Your task to perform on an android device: What's the weather today? Image 0: 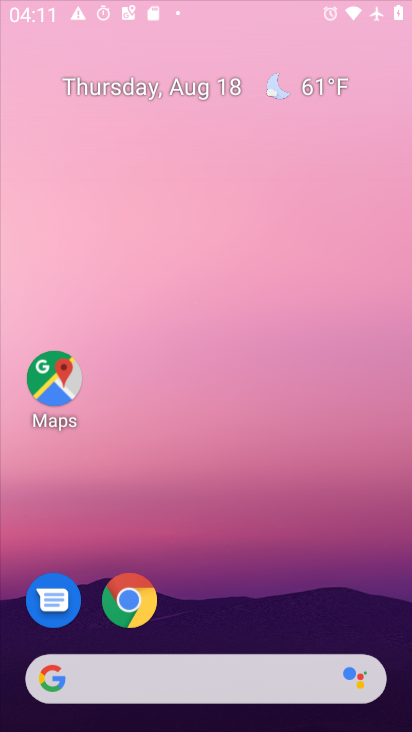
Step 0: press home button
Your task to perform on an android device: What's the weather today? Image 1: 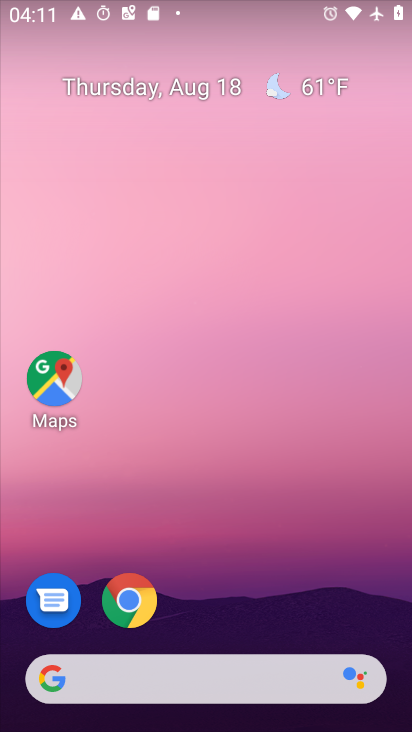
Step 1: click (50, 690)
Your task to perform on an android device: What's the weather today? Image 2: 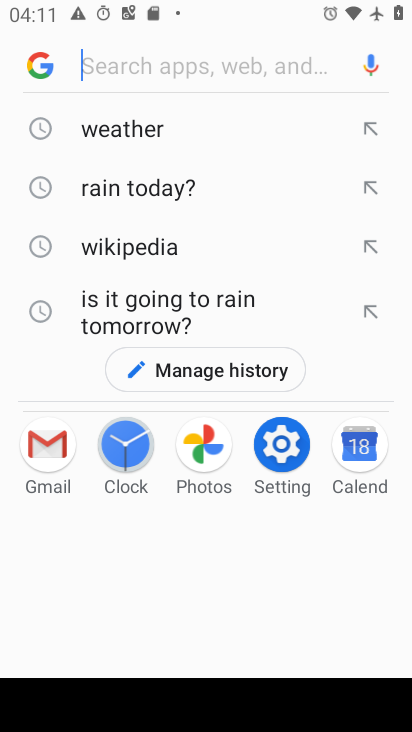
Step 2: type " weather today?"
Your task to perform on an android device: What's the weather today? Image 3: 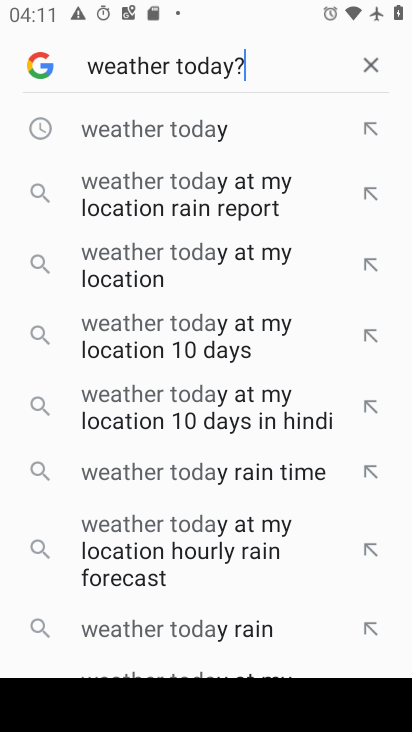
Step 3: press enter
Your task to perform on an android device: What's the weather today? Image 4: 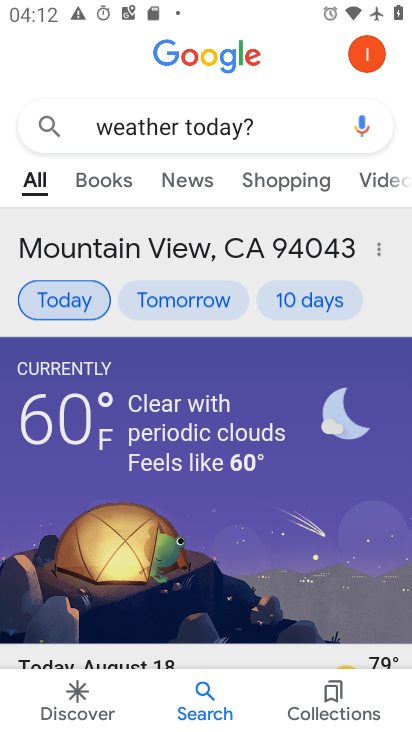
Step 4: task complete